Your task to perform on an android device: Open the stopwatch Image 0: 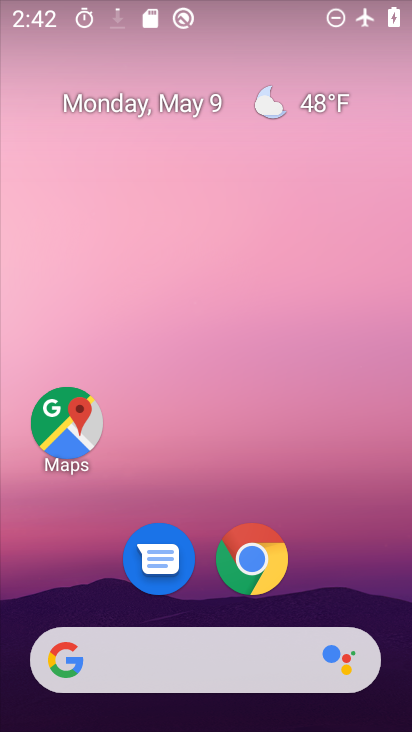
Step 0: drag from (197, 612) to (269, 70)
Your task to perform on an android device: Open the stopwatch Image 1: 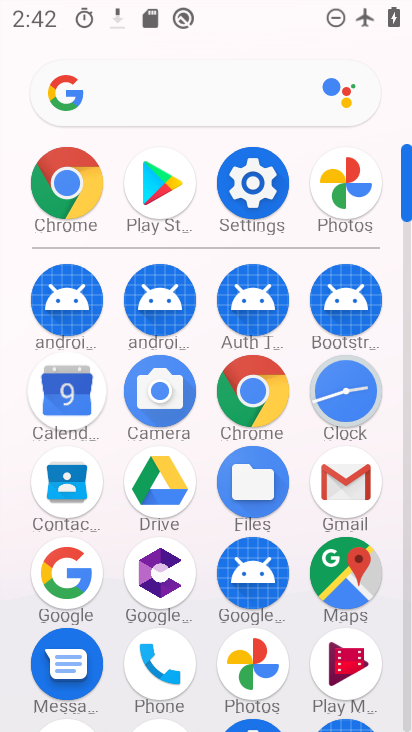
Step 1: click (331, 407)
Your task to perform on an android device: Open the stopwatch Image 2: 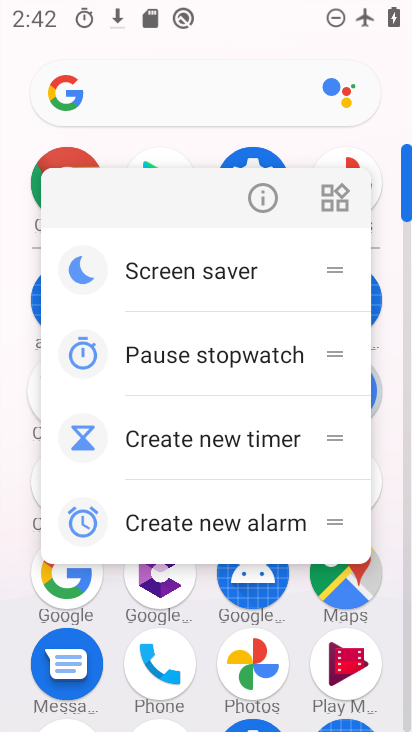
Step 2: click (264, 194)
Your task to perform on an android device: Open the stopwatch Image 3: 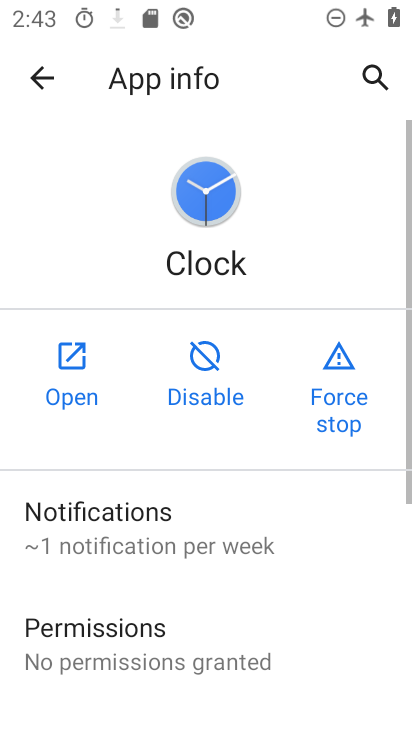
Step 3: click (47, 376)
Your task to perform on an android device: Open the stopwatch Image 4: 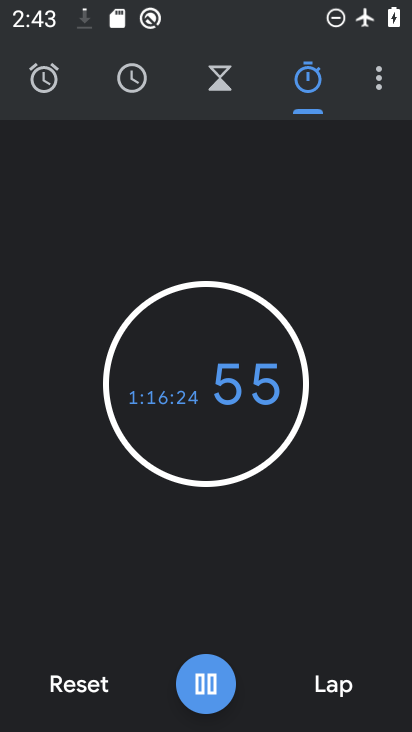
Step 4: task complete